Your task to perform on an android device: Open display settings Image 0: 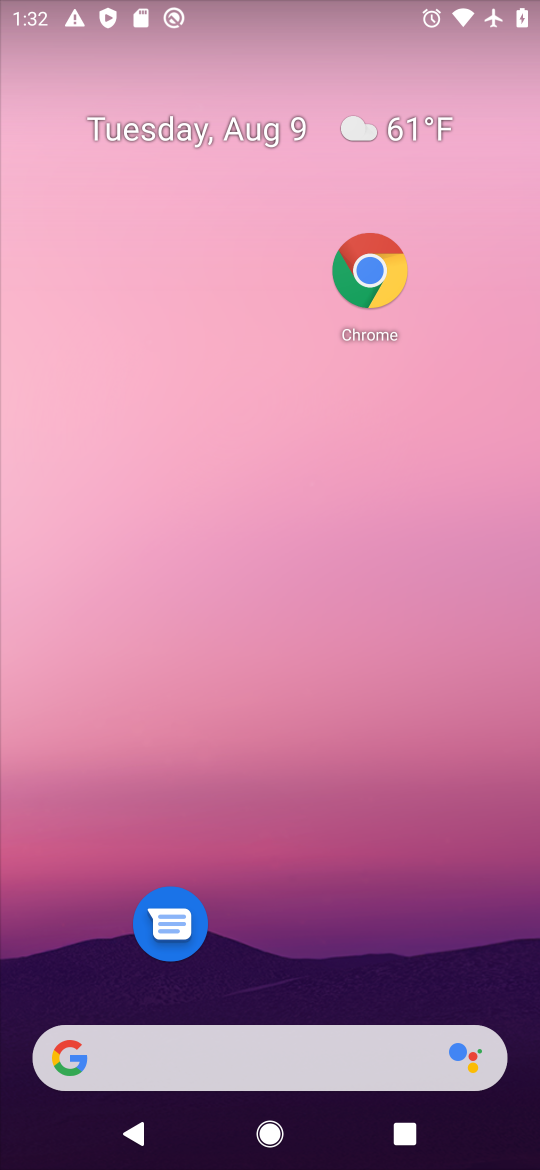
Step 0: drag from (335, 979) to (238, 304)
Your task to perform on an android device: Open display settings Image 1: 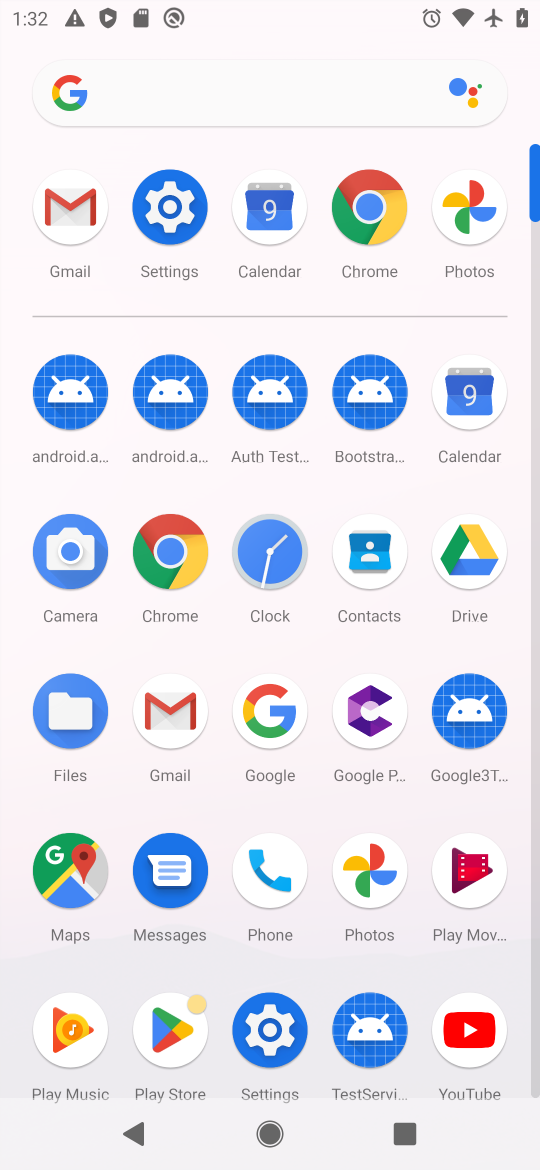
Step 1: click (284, 1017)
Your task to perform on an android device: Open display settings Image 2: 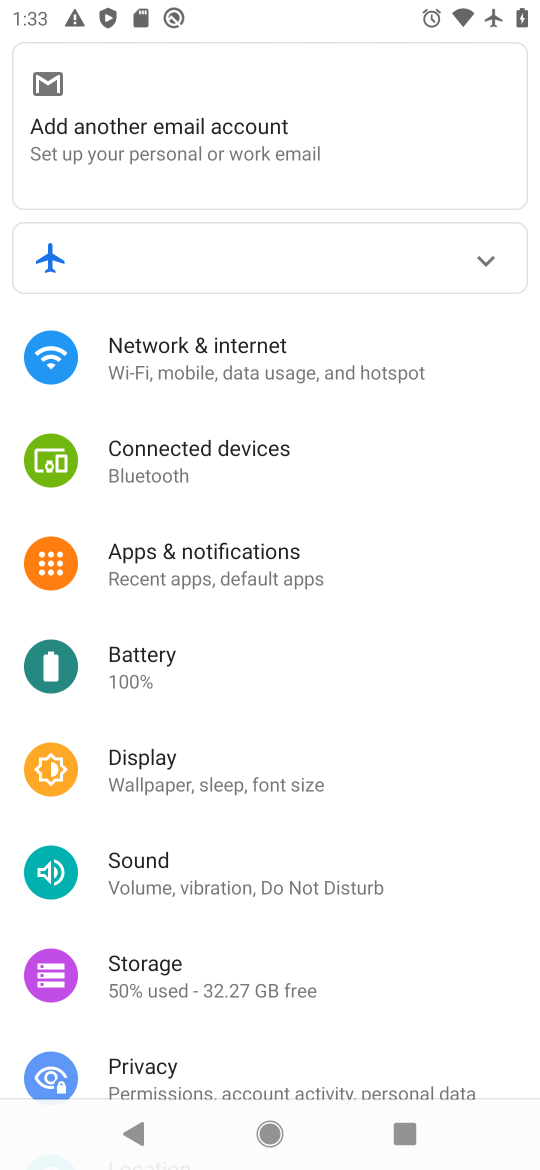
Step 2: click (245, 809)
Your task to perform on an android device: Open display settings Image 3: 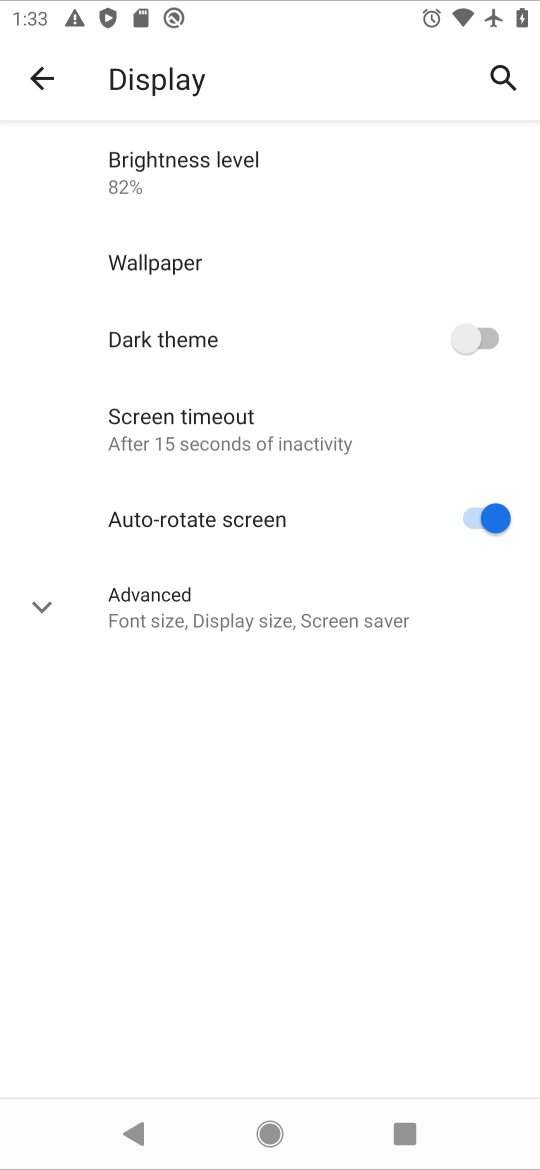
Step 3: task complete